Your task to perform on an android device: Check the news Image 0: 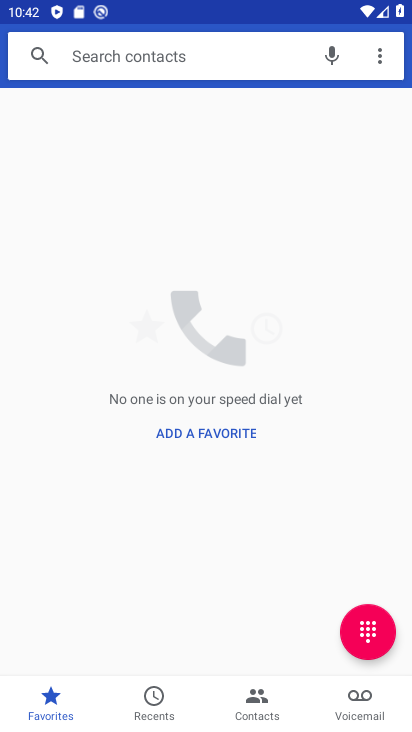
Step 0: press home button
Your task to perform on an android device: Check the news Image 1: 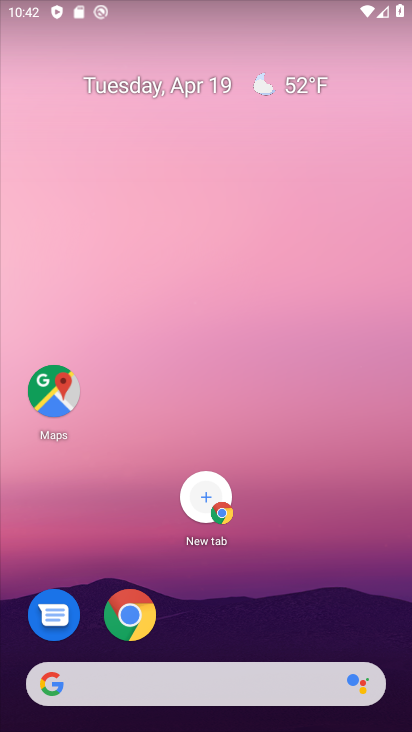
Step 1: click (188, 703)
Your task to perform on an android device: Check the news Image 2: 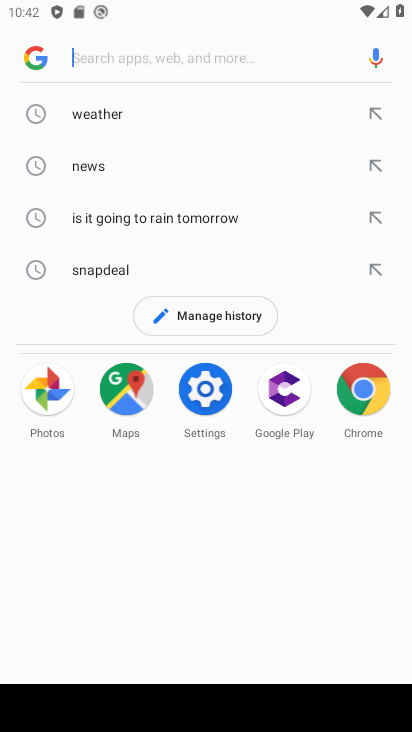
Step 2: click (29, 51)
Your task to perform on an android device: Check the news Image 3: 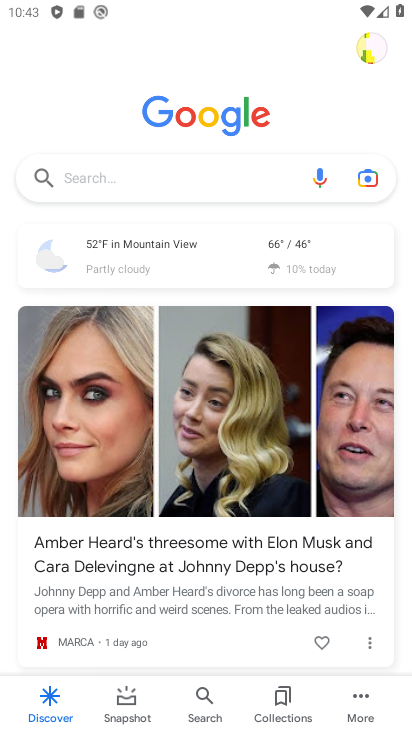
Step 3: task complete